Your task to perform on an android device: Is it going to rain today? Image 0: 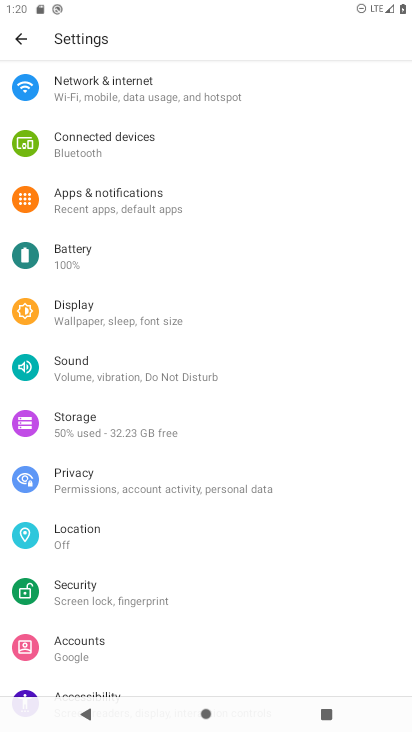
Step 0: press home button
Your task to perform on an android device: Is it going to rain today? Image 1: 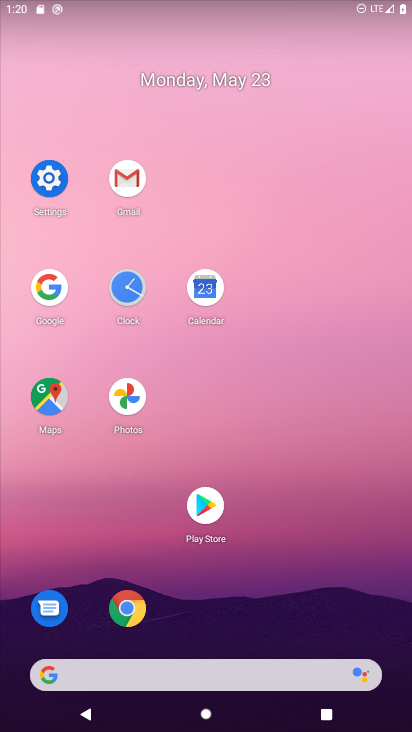
Step 1: click (53, 283)
Your task to perform on an android device: Is it going to rain today? Image 2: 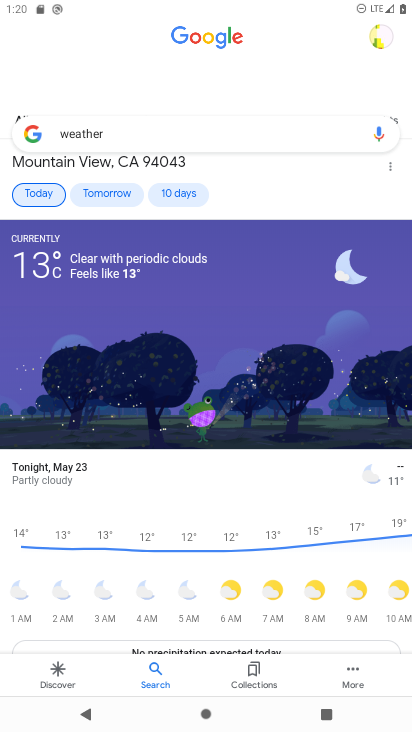
Step 2: task complete